Your task to perform on an android device: turn on improve location accuracy Image 0: 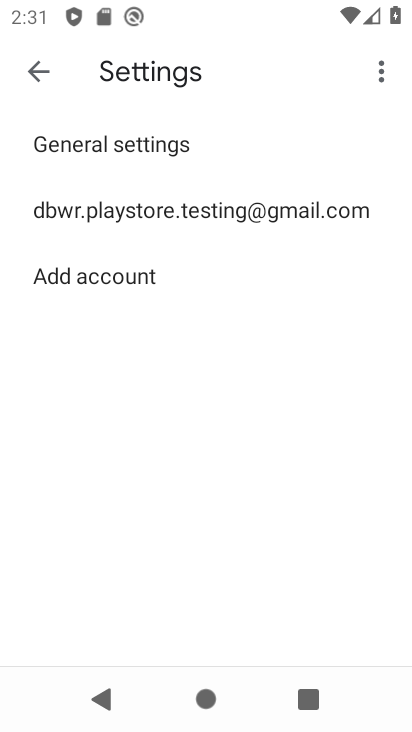
Step 0: press home button
Your task to perform on an android device: turn on improve location accuracy Image 1: 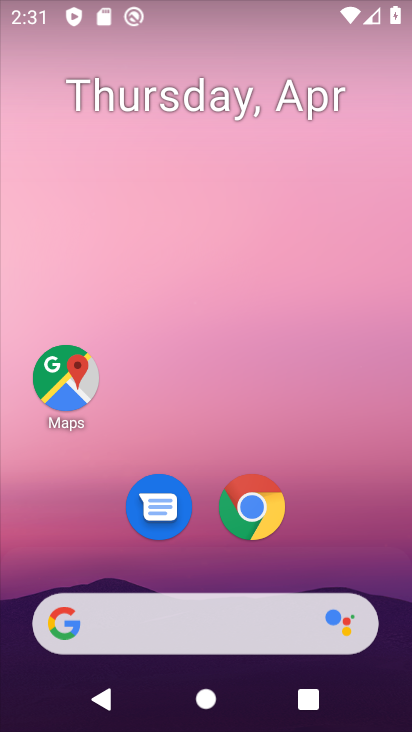
Step 1: drag from (365, 467) to (321, 171)
Your task to perform on an android device: turn on improve location accuracy Image 2: 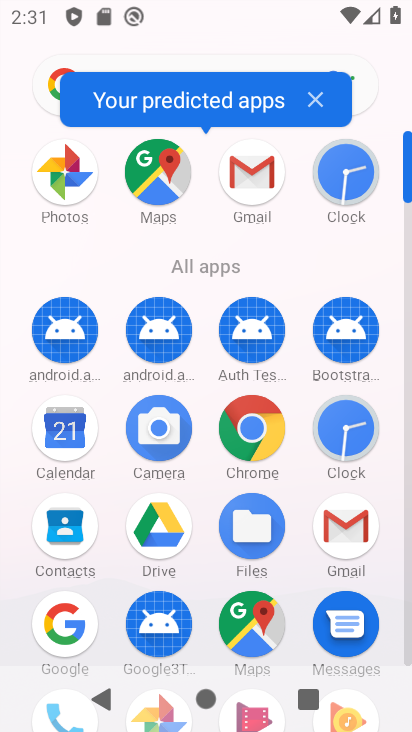
Step 2: drag from (295, 570) to (302, 332)
Your task to perform on an android device: turn on improve location accuracy Image 3: 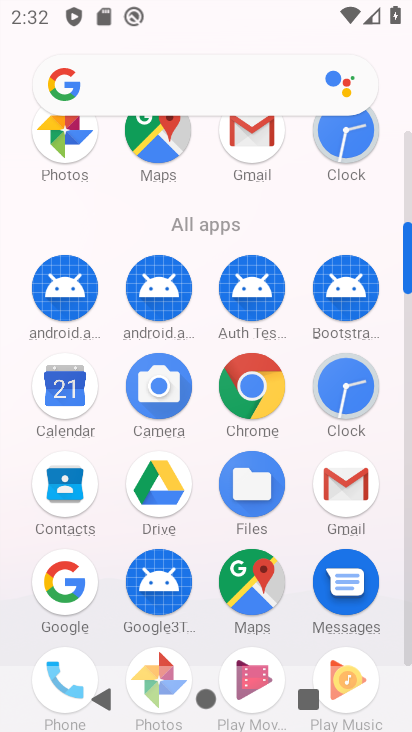
Step 3: drag from (393, 541) to (390, 359)
Your task to perform on an android device: turn on improve location accuracy Image 4: 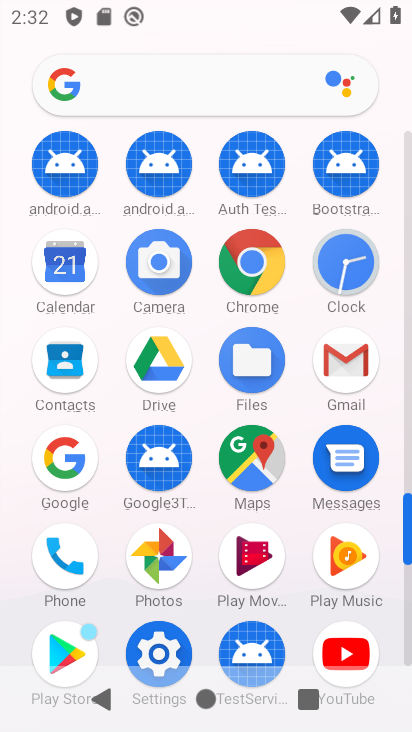
Step 4: drag from (386, 596) to (390, 436)
Your task to perform on an android device: turn on improve location accuracy Image 5: 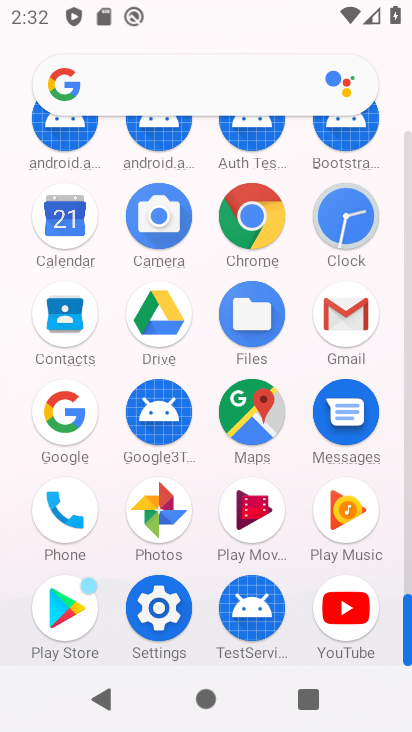
Step 5: click (165, 614)
Your task to perform on an android device: turn on improve location accuracy Image 6: 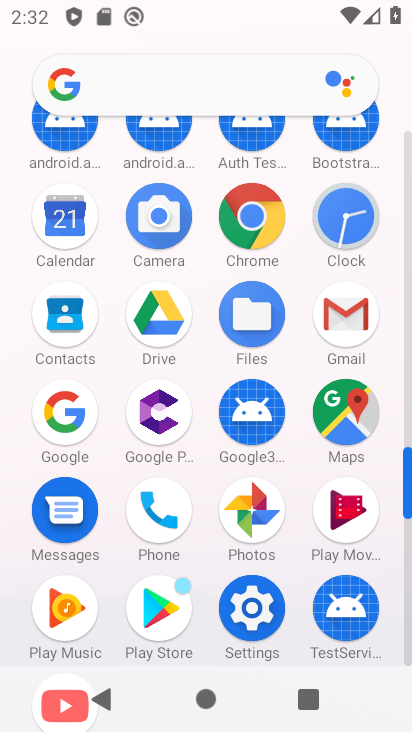
Step 6: click (269, 624)
Your task to perform on an android device: turn on improve location accuracy Image 7: 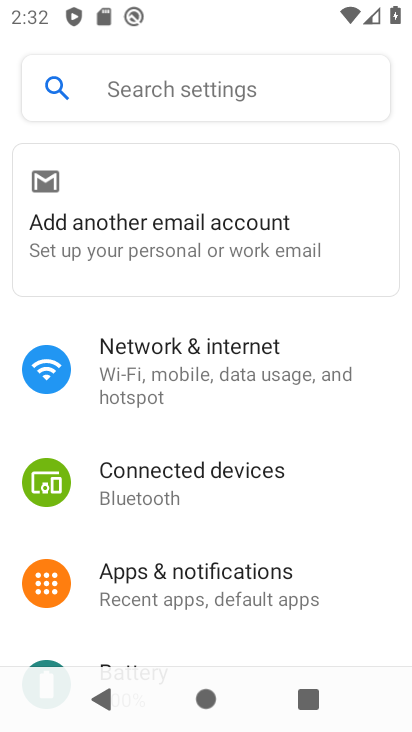
Step 7: drag from (341, 611) to (341, 315)
Your task to perform on an android device: turn on improve location accuracy Image 8: 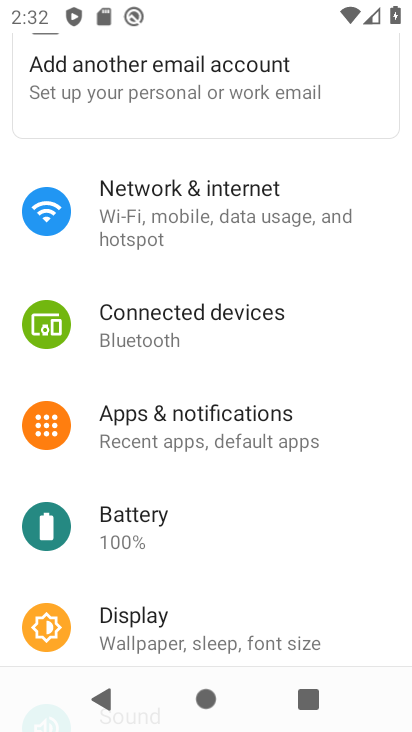
Step 8: drag from (332, 598) to (337, 192)
Your task to perform on an android device: turn on improve location accuracy Image 9: 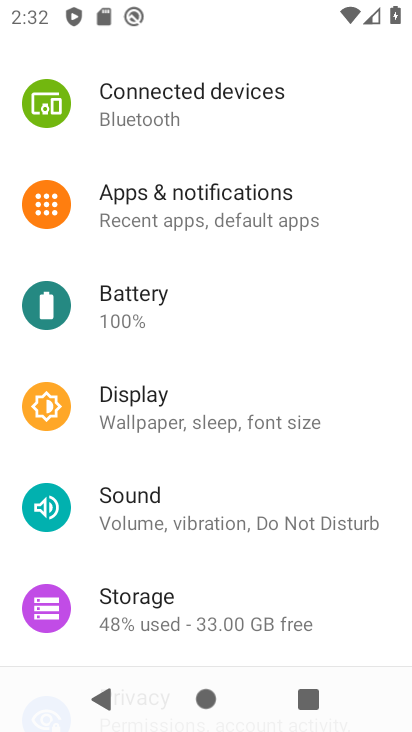
Step 9: drag from (342, 603) to (340, 295)
Your task to perform on an android device: turn on improve location accuracy Image 10: 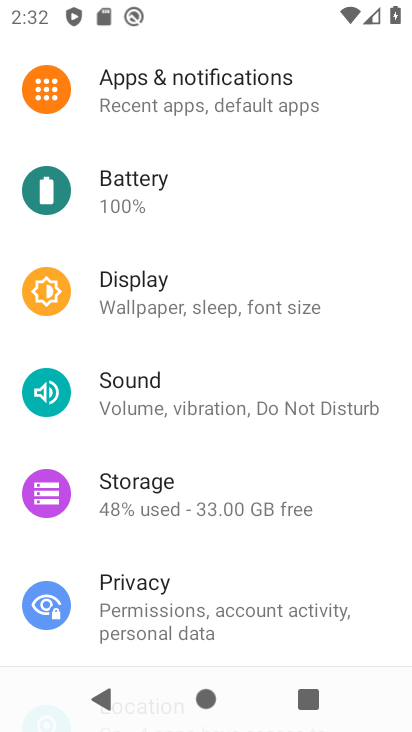
Step 10: drag from (358, 572) to (333, 188)
Your task to perform on an android device: turn on improve location accuracy Image 11: 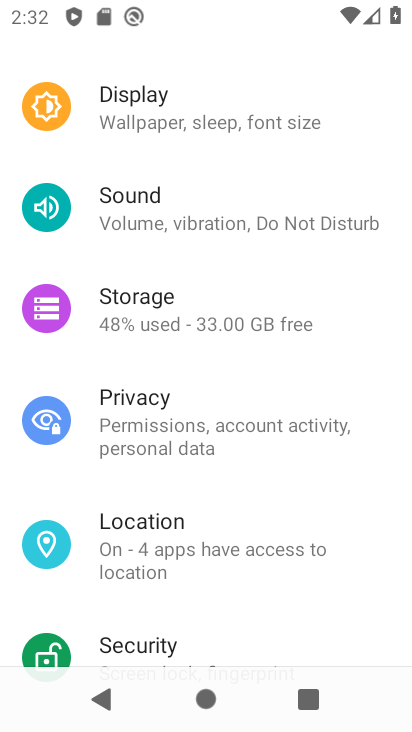
Step 11: drag from (295, 602) to (328, 285)
Your task to perform on an android device: turn on improve location accuracy Image 12: 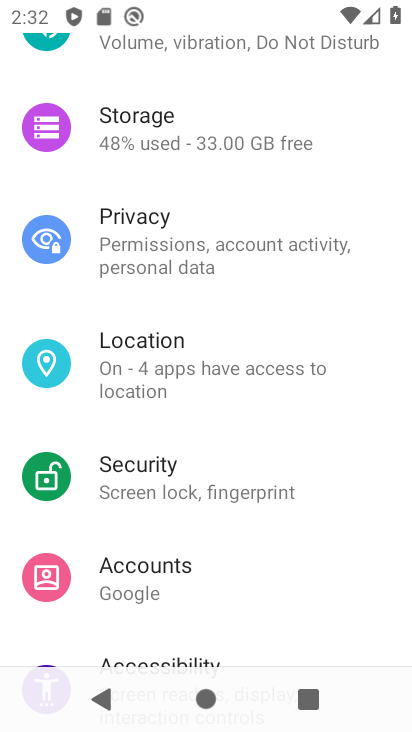
Step 12: drag from (307, 620) to (313, 272)
Your task to perform on an android device: turn on improve location accuracy Image 13: 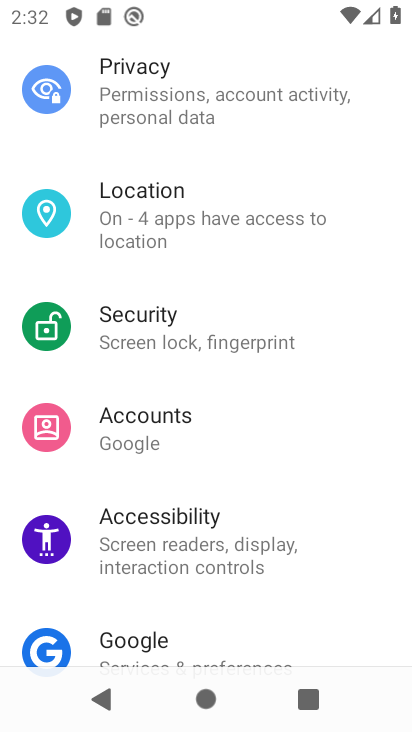
Step 13: drag from (299, 597) to (321, 245)
Your task to perform on an android device: turn on improve location accuracy Image 14: 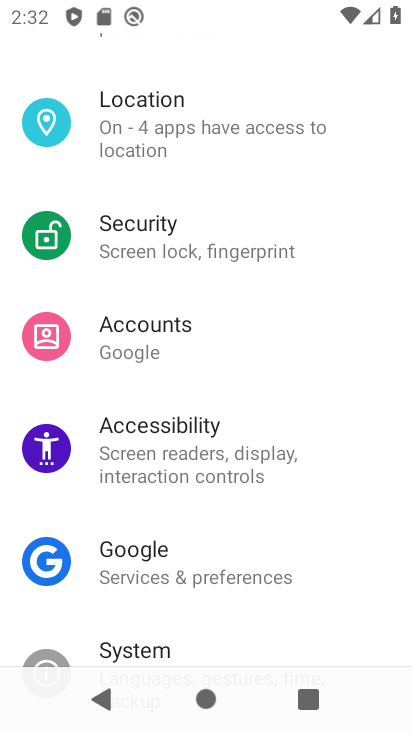
Step 14: click (190, 132)
Your task to perform on an android device: turn on improve location accuracy Image 15: 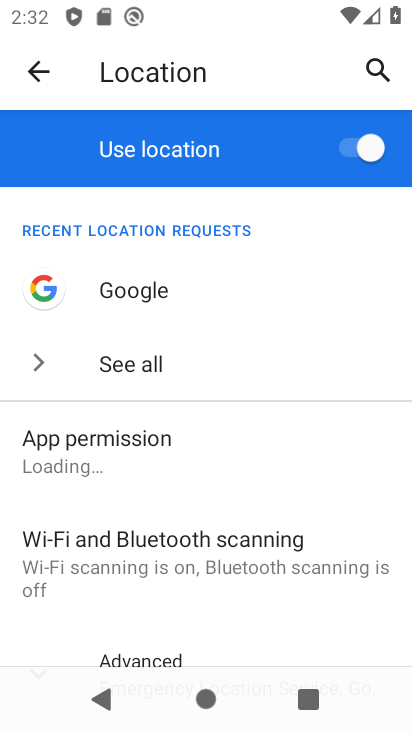
Step 15: drag from (256, 636) to (315, 233)
Your task to perform on an android device: turn on improve location accuracy Image 16: 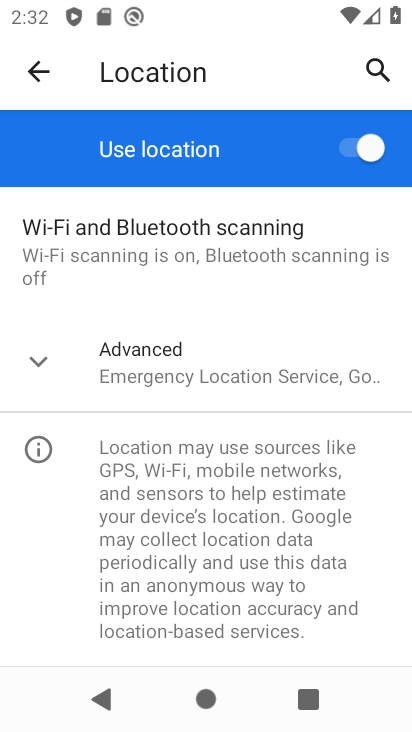
Step 16: click (279, 362)
Your task to perform on an android device: turn on improve location accuracy Image 17: 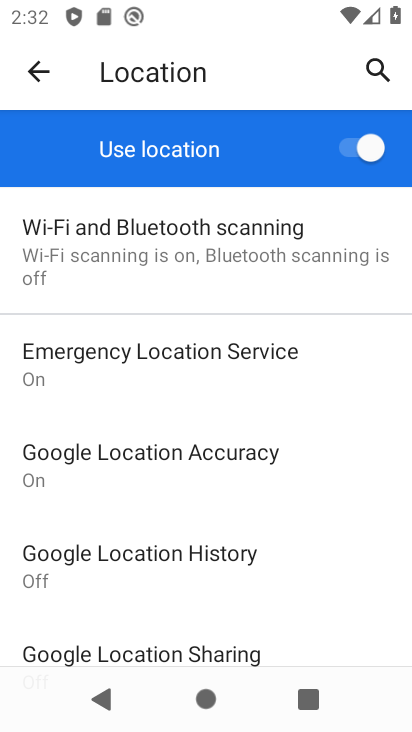
Step 17: task complete